Your task to perform on an android device: change notification settings in the gmail app Image 0: 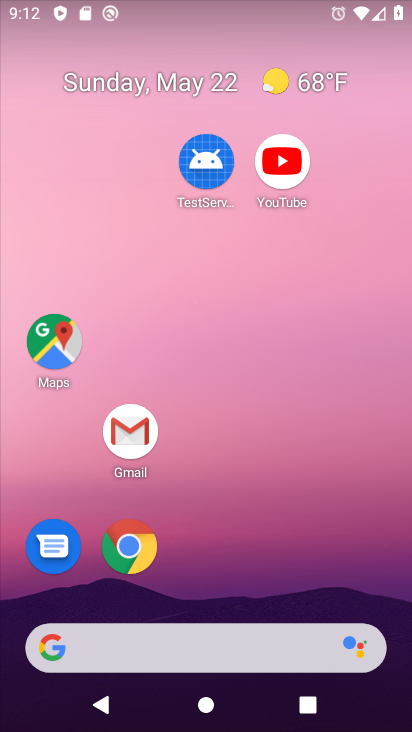
Step 0: drag from (261, 689) to (211, 84)
Your task to perform on an android device: change notification settings in the gmail app Image 1: 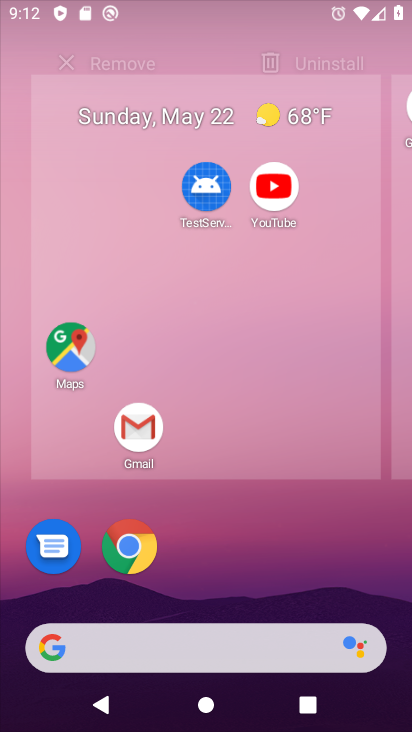
Step 1: drag from (217, 573) to (189, 170)
Your task to perform on an android device: change notification settings in the gmail app Image 2: 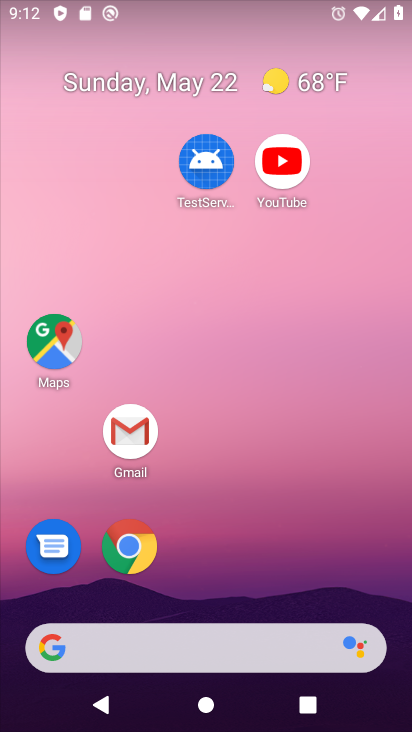
Step 2: click (228, 10)
Your task to perform on an android device: change notification settings in the gmail app Image 3: 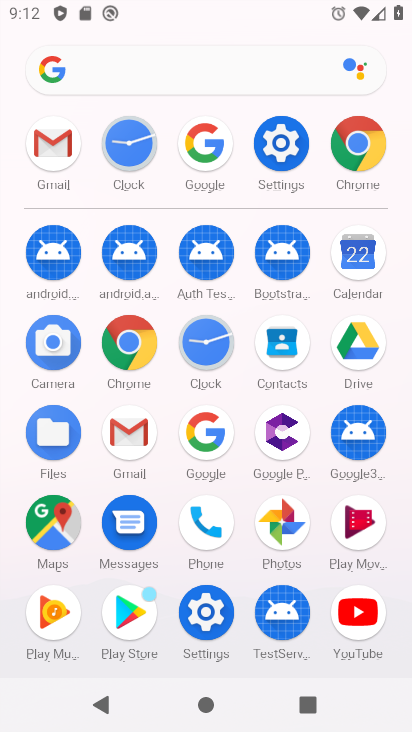
Step 3: click (122, 446)
Your task to perform on an android device: change notification settings in the gmail app Image 4: 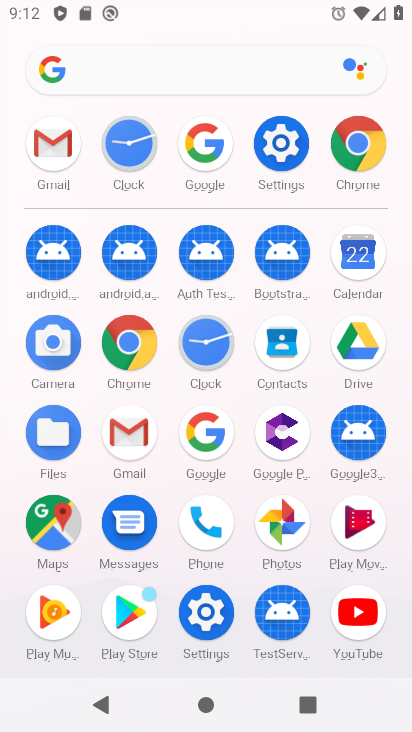
Step 4: click (122, 443)
Your task to perform on an android device: change notification settings in the gmail app Image 5: 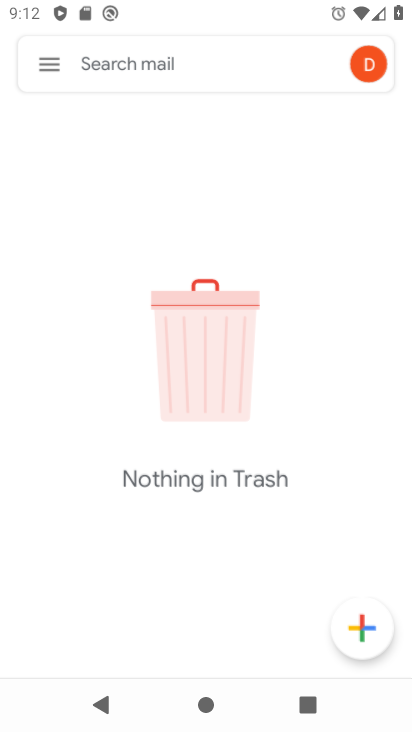
Step 5: click (122, 442)
Your task to perform on an android device: change notification settings in the gmail app Image 6: 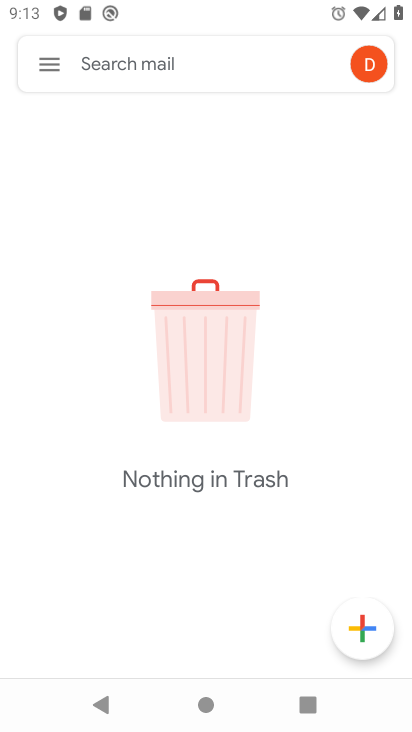
Step 6: click (46, 53)
Your task to perform on an android device: change notification settings in the gmail app Image 7: 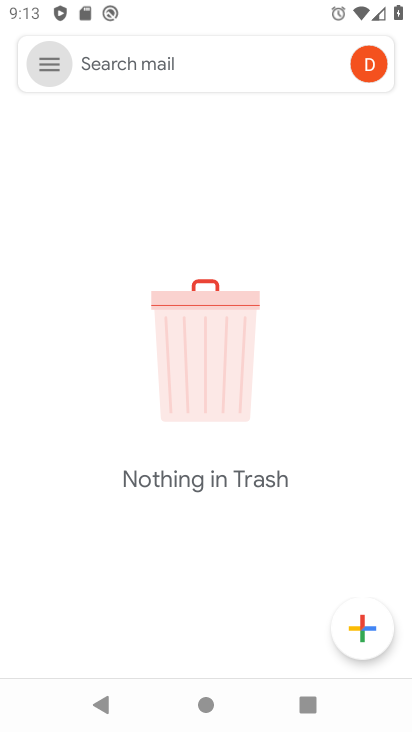
Step 7: click (46, 53)
Your task to perform on an android device: change notification settings in the gmail app Image 8: 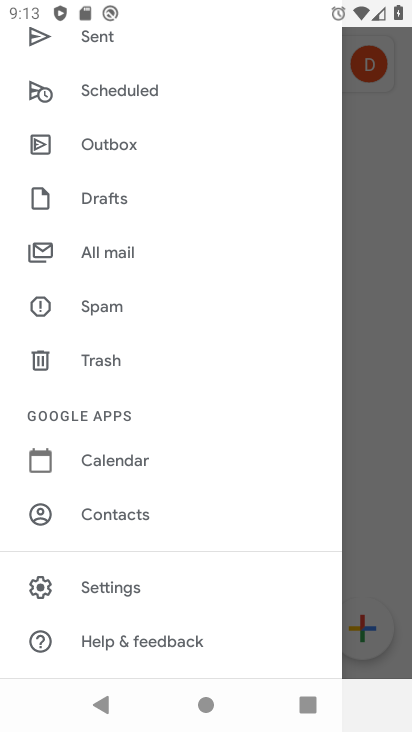
Step 8: click (113, 294)
Your task to perform on an android device: change notification settings in the gmail app Image 9: 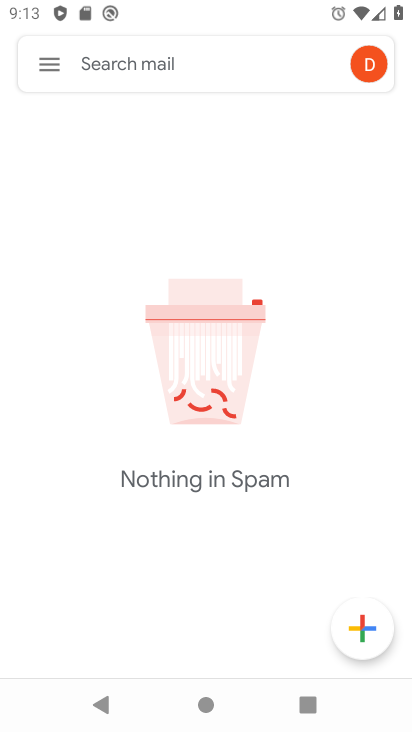
Step 9: click (48, 61)
Your task to perform on an android device: change notification settings in the gmail app Image 10: 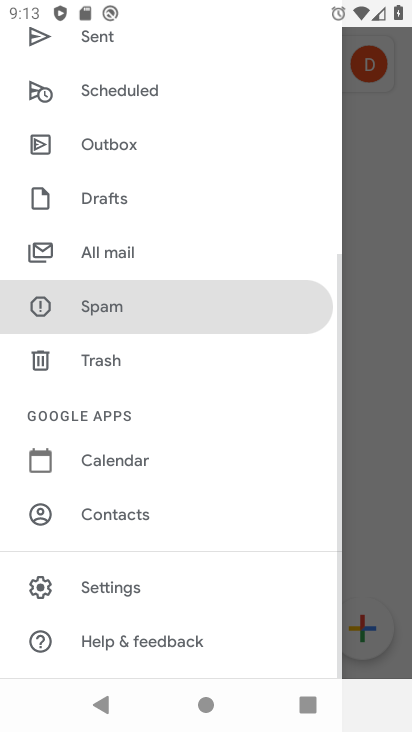
Step 10: click (102, 585)
Your task to perform on an android device: change notification settings in the gmail app Image 11: 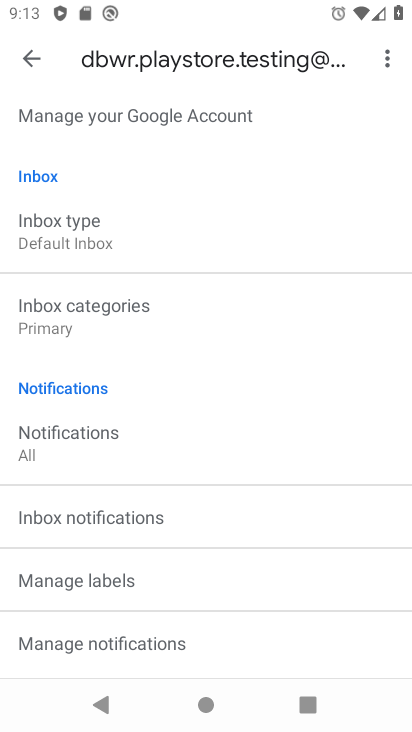
Step 11: click (51, 439)
Your task to perform on an android device: change notification settings in the gmail app Image 12: 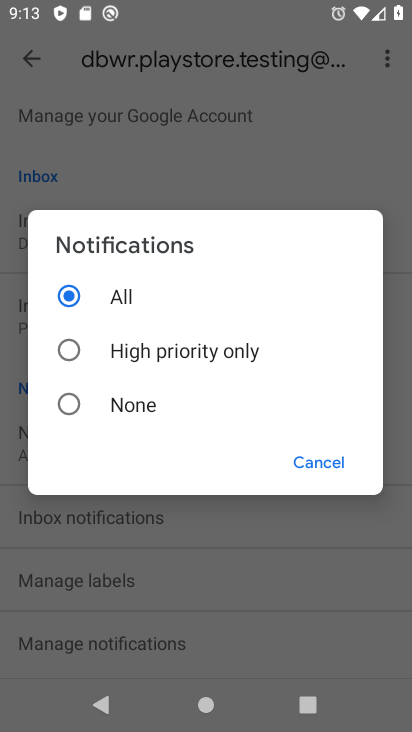
Step 12: click (62, 356)
Your task to perform on an android device: change notification settings in the gmail app Image 13: 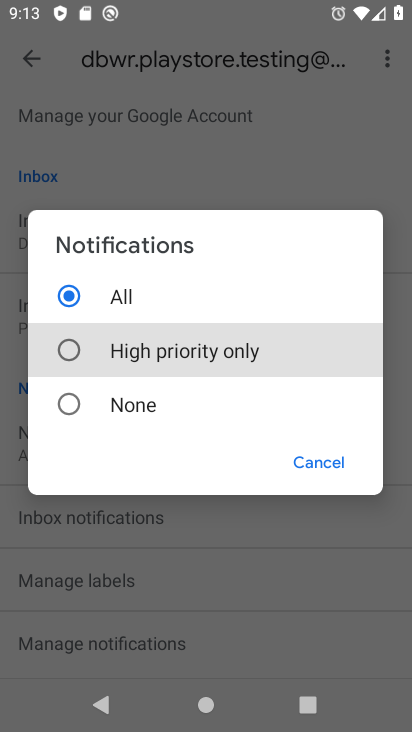
Step 13: click (68, 350)
Your task to perform on an android device: change notification settings in the gmail app Image 14: 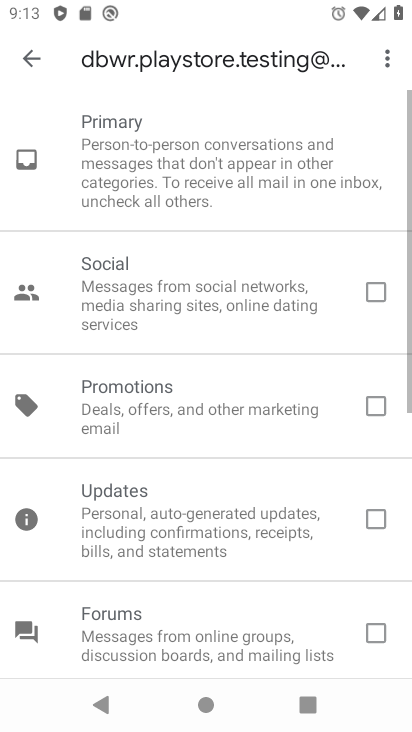
Step 14: task complete